Your task to perform on an android device: Show me the alarms in the clock app Image 0: 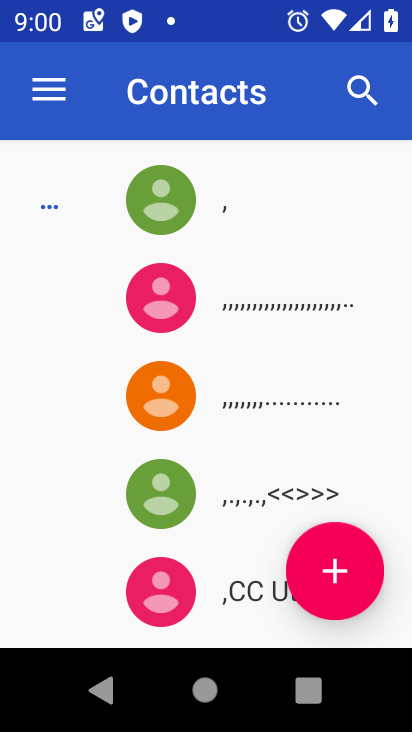
Step 0: press home button
Your task to perform on an android device: Show me the alarms in the clock app Image 1: 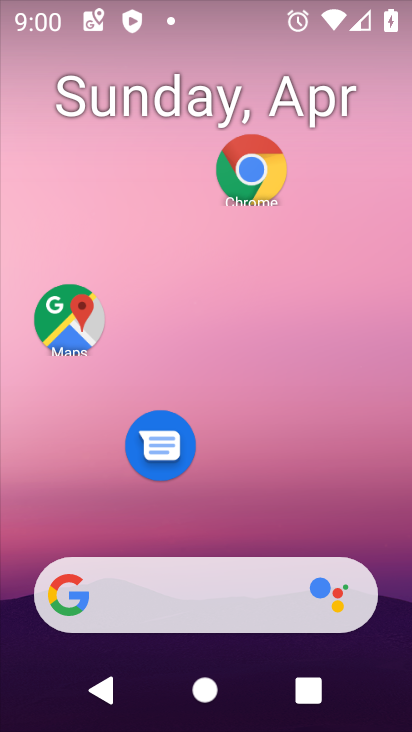
Step 1: drag from (308, 493) to (323, 245)
Your task to perform on an android device: Show me the alarms in the clock app Image 2: 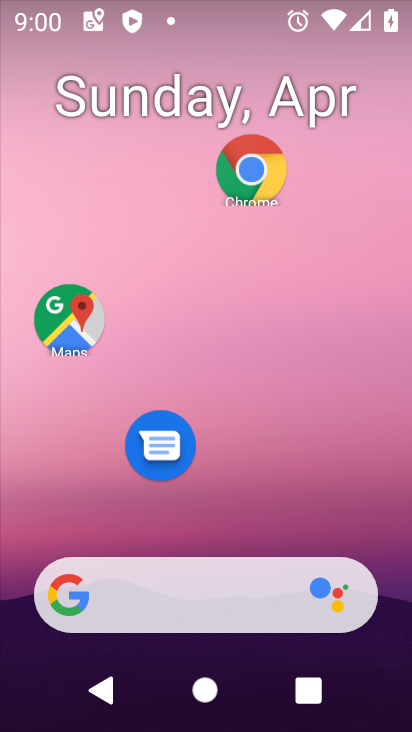
Step 2: drag from (247, 509) to (264, 119)
Your task to perform on an android device: Show me the alarms in the clock app Image 3: 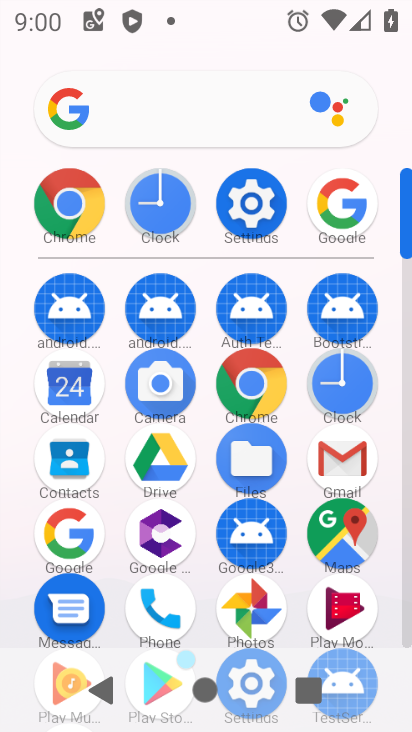
Step 3: click (344, 391)
Your task to perform on an android device: Show me the alarms in the clock app Image 4: 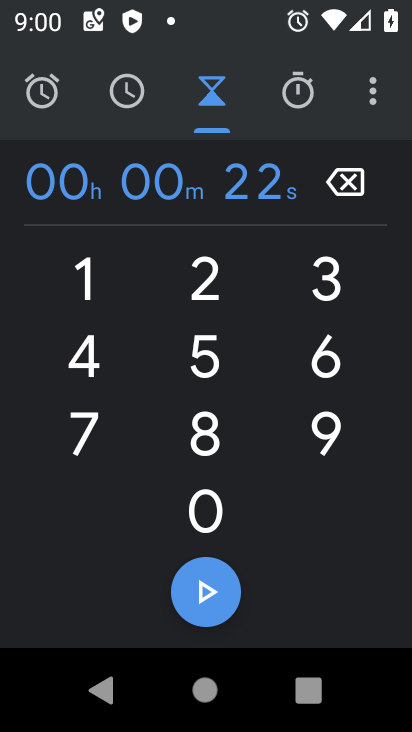
Step 4: click (52, 98)
Your task to perform on an android device: Show me the alarms in the clock app Image 5: 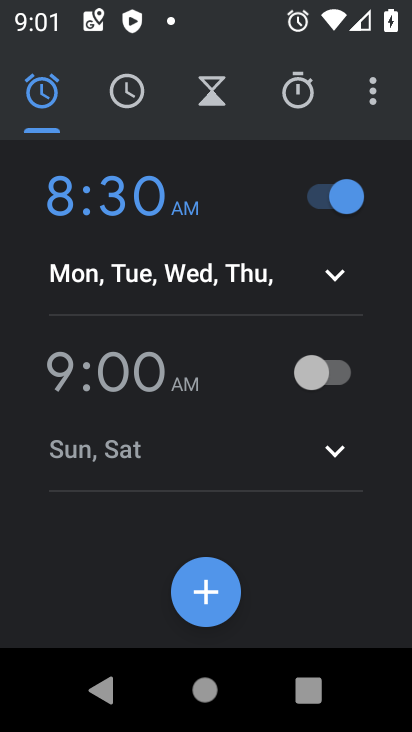
Step 5: task complete